Your task to perform on an android device: Open the Play Movies app and select the watchlist tab. Image 0: 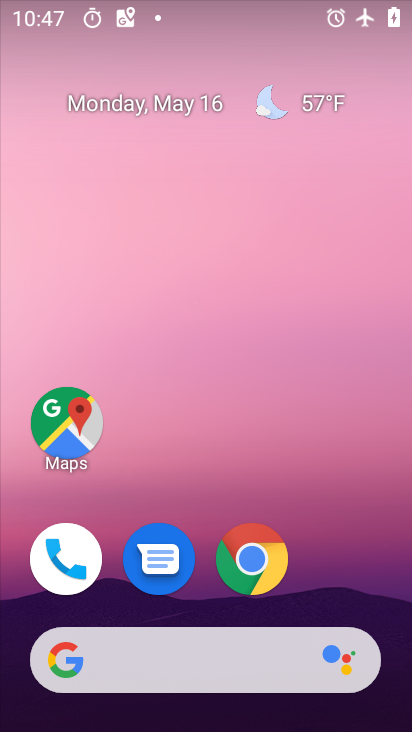
Step 0: drag from (326, 526) to (200, 143)
Your task to perform on an android device: Open the Play Movies app and select the watchlist tab. Image 1: 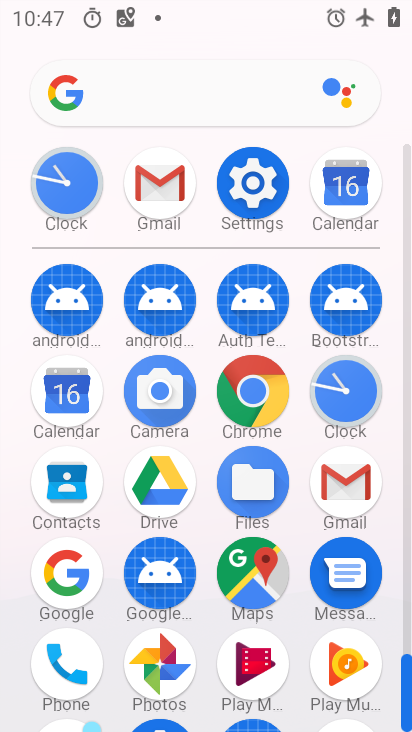
Step 1: click (263, 667)
Your task to perform on an android device: Open the Play Movies app and select the watchlist tab. Image 2: 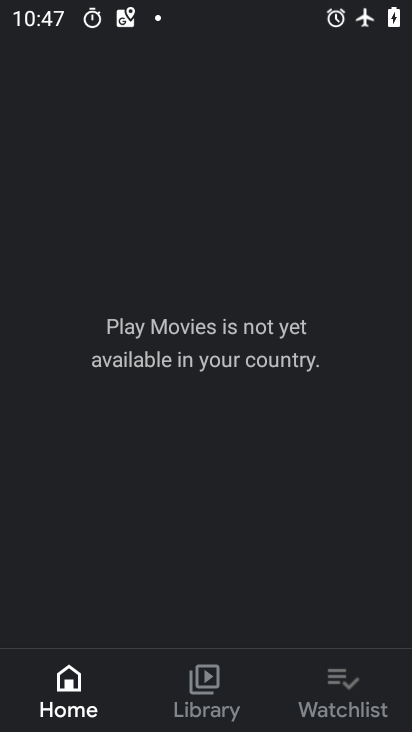
Step 2: click (311, 681)
Your task to perform on an android device: Open the Play Movies app and select the watchlist tab. Image 3: 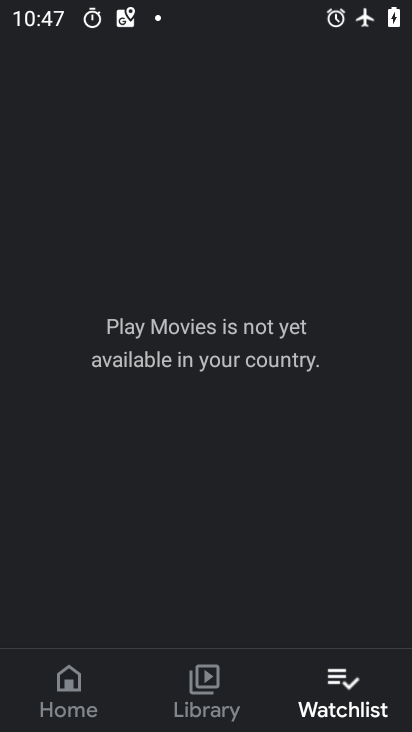
Step 3: task complete